Your task to perform on an android device: all mails in gmail Image 0: 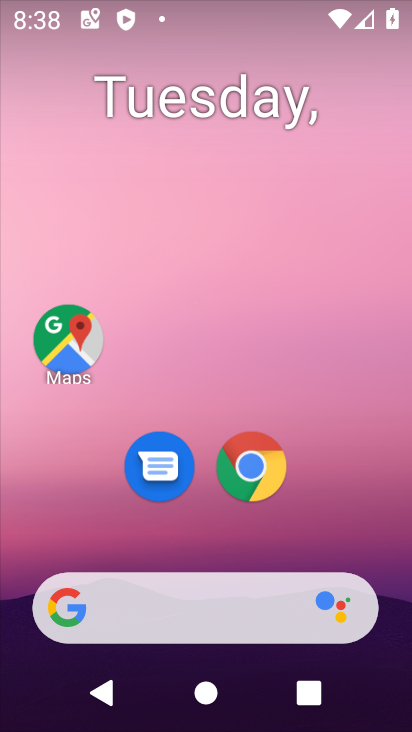
Step 0: drag from (373, 515) to (357, 14)
Your task to perform on an android device: all mails in gmail Image 1: 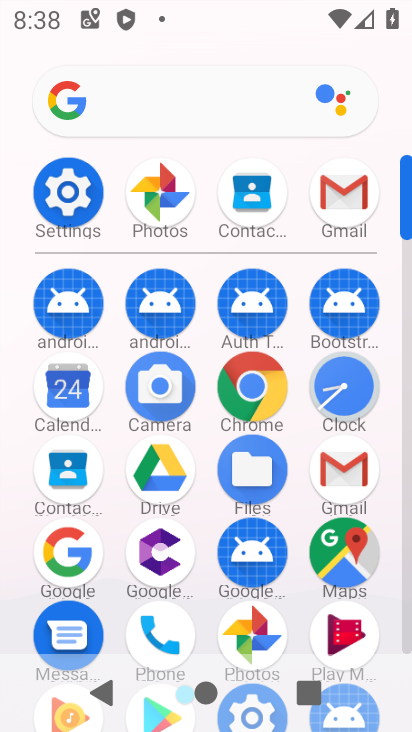
Step 1: click (322, 472)
Your task to perform on an android device: all mails in gmail Image 2: 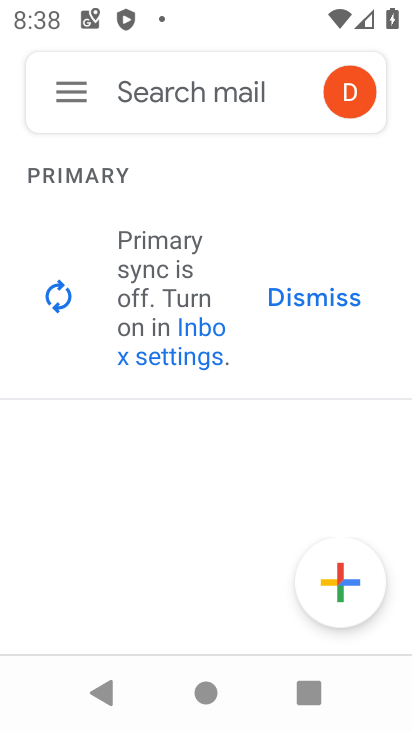
Step 2: click (75, 106)
Your task to perform on an android device: all mails in gmail Image 3: 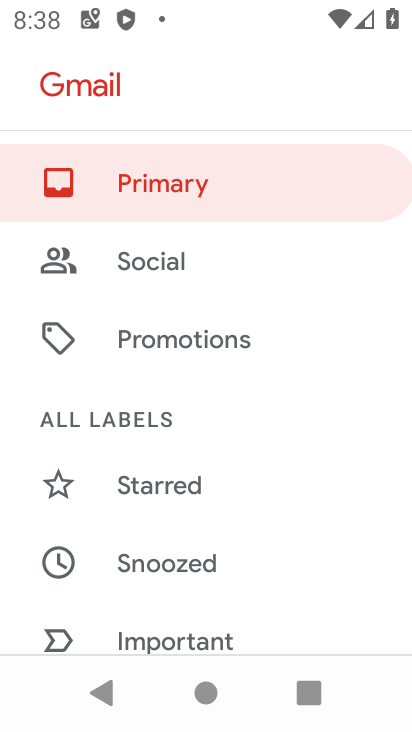
Step 3: drag from (207, 571) to (221, 260)
Your task to perform on an android device: all mails in gmail Image 4: 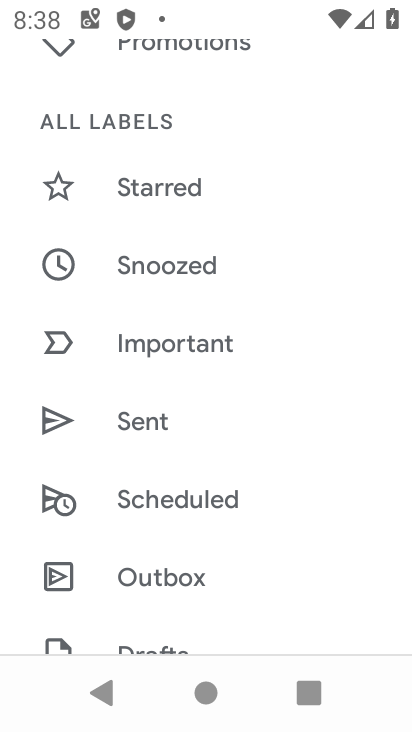
Step 4: drag from (252, 536) to (255, 159)
Your task to perform on an android device: all mails in gmail Image 5: 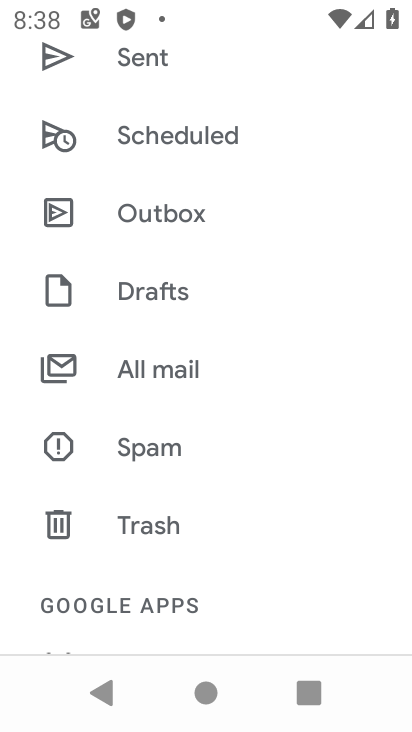
Step 5: click (221, 379)
Your task to perform on an android device: all mails in gmail Image 6: 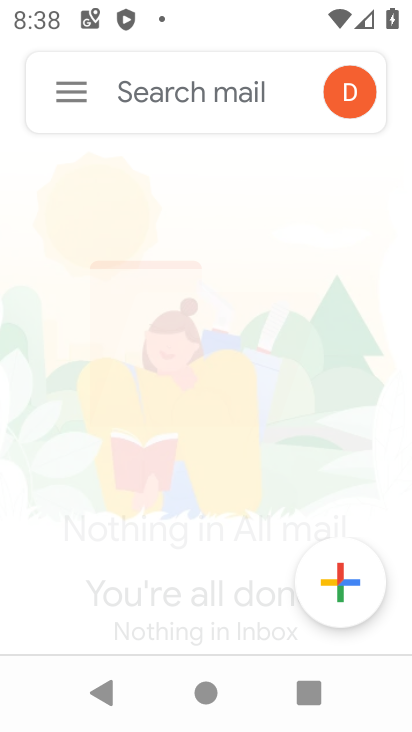
Step 6: task complete